Your task to perform on an android device: open app "Adobe Acrobat Reader" Image 0: 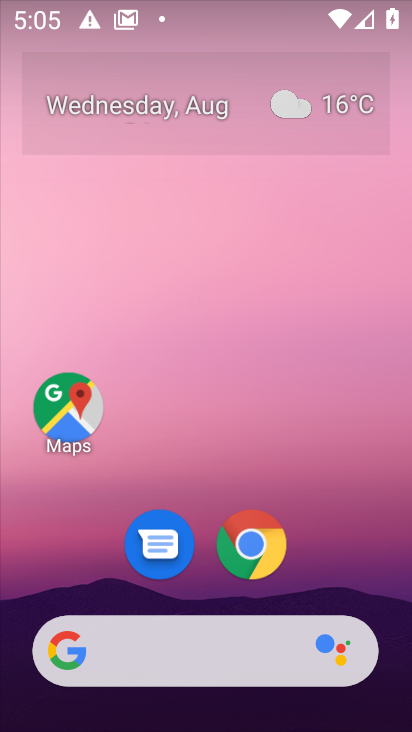
Step 0: drag from (173, 652) to (206, 52)
Your task to perform on an android device: open app "Adobe Acrobat Reader" Image 1: 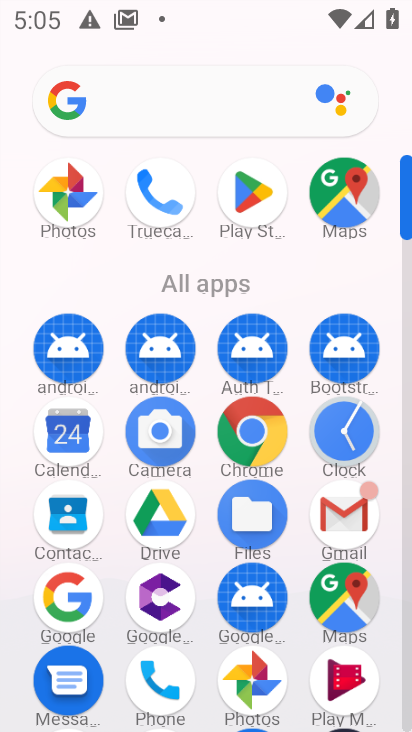
Step 1: click (256, 199)
Your task to perform on an android device: open app "Adobe Acrobat Reader" Image 2: 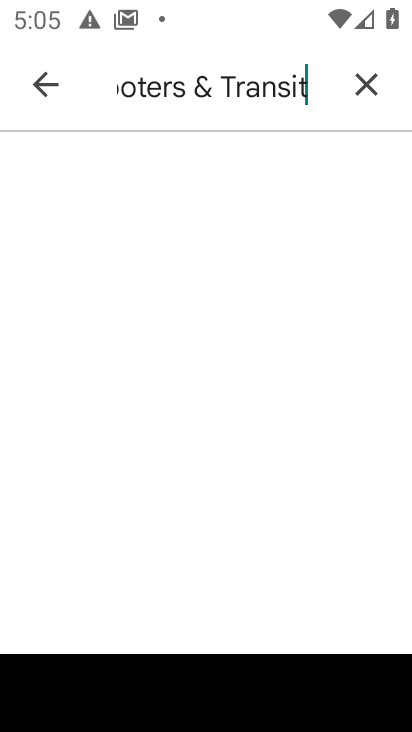
Step 2: press back button
Your task to perform on an android device: open app "Adobe Acrobat Reader" Image 3: 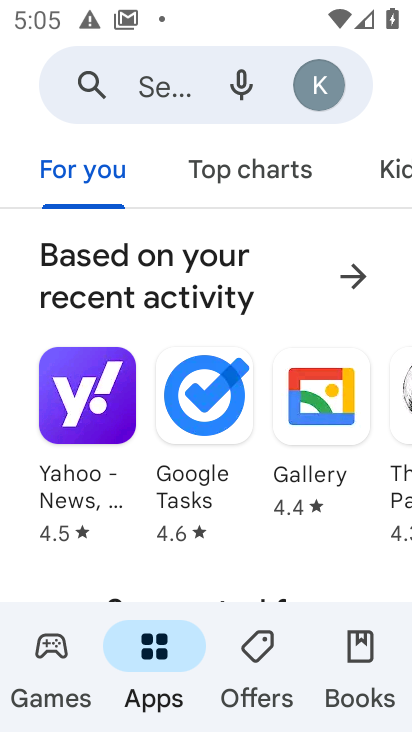
Step 3: click (169, 97)
Your task to perform on an android device: open app "Adobe Acrobat Reader" Image 4: 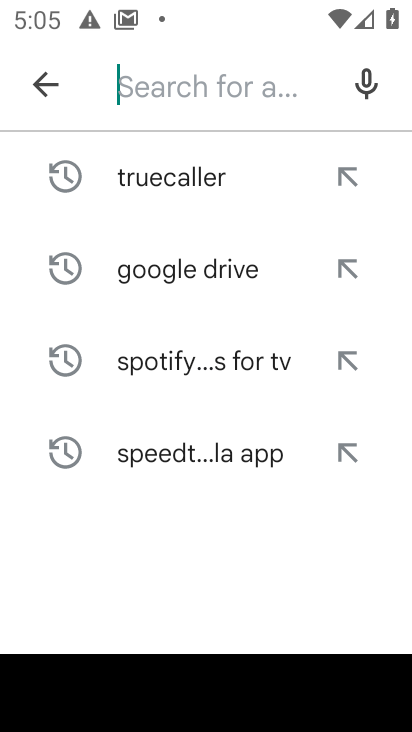
Step 4: type "Adobe Acrobat Reader"
Your task to perform on an android device: open app "Adobe Acrobat Reader" Image 5: 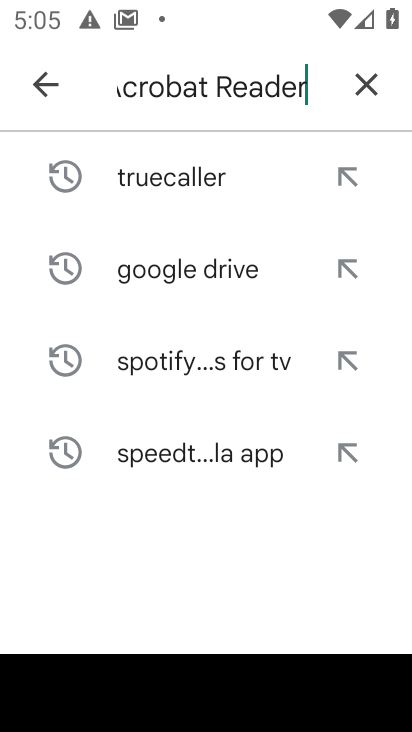
Step 5: type ""
Your task to perform on an android device: open app "Adobe Acrobat Reader" Image 6: 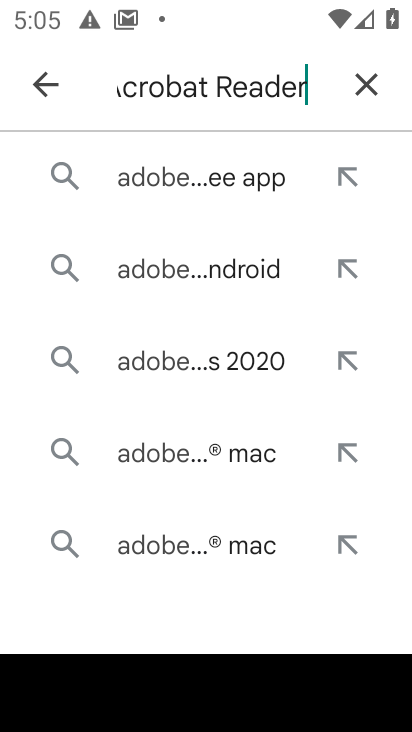
Step 6: click (161, 172)
Your task to perform on an android device: open app "Adobe Acrobat Reader" Image 7: 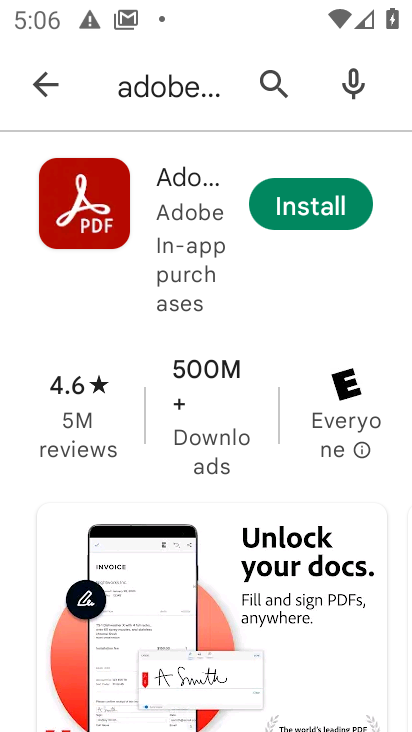
Step 7: task complete